Your task to perform on an android device: set the timer Image 0: 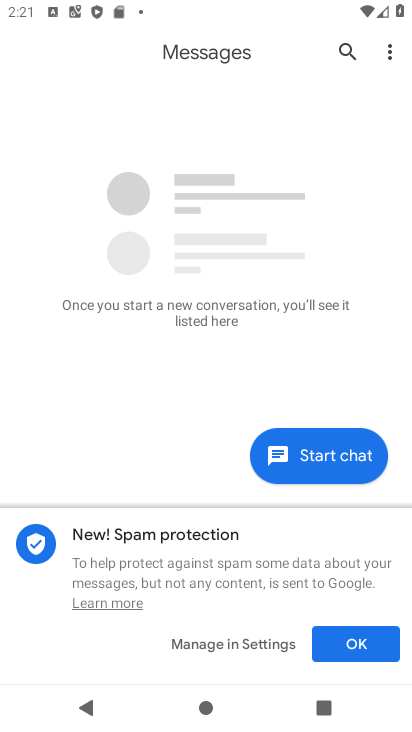
Step 0: press home button
Your task to perform on an android device: set the timer Image 1: 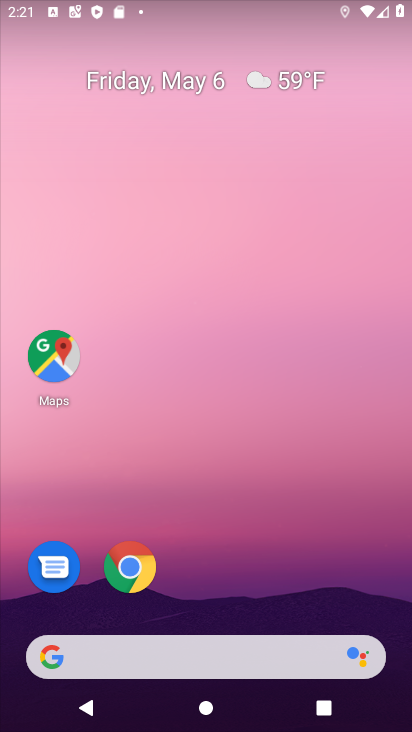
Step 1: drag from (389, 611) to (306, 10)
Your task to perform on an android device: set the timer Image 2: 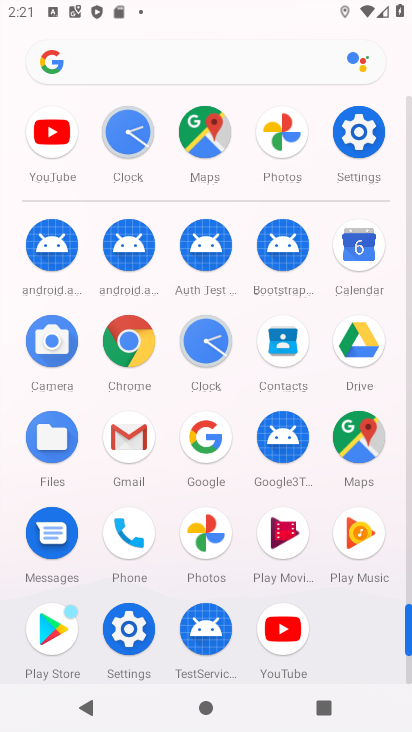
Step 2: click (206, 338)
Your task to perform on an android device: set the timer Image 3: 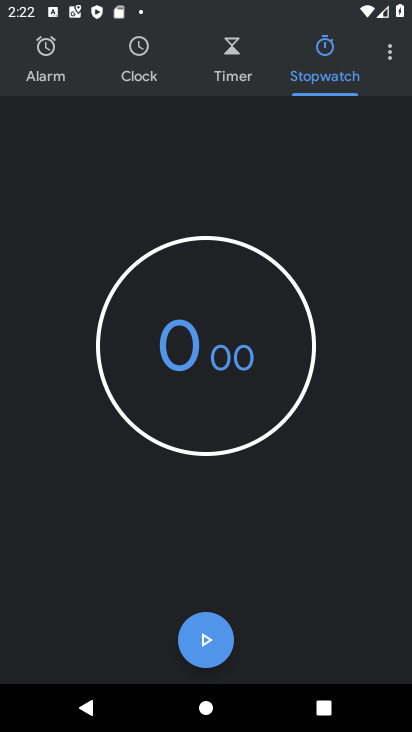
Step 3: click (229, 53)
Your task to perform on an android device: set the timer Image 4: 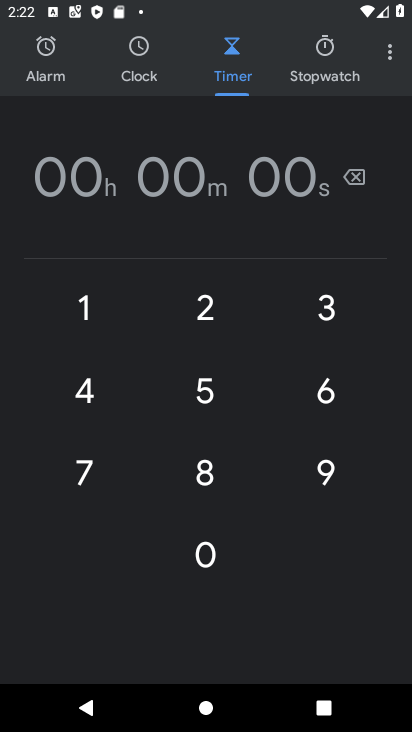
Step 4: click (76, 294)
Your task to perform on an android device: set the timer Image 5: 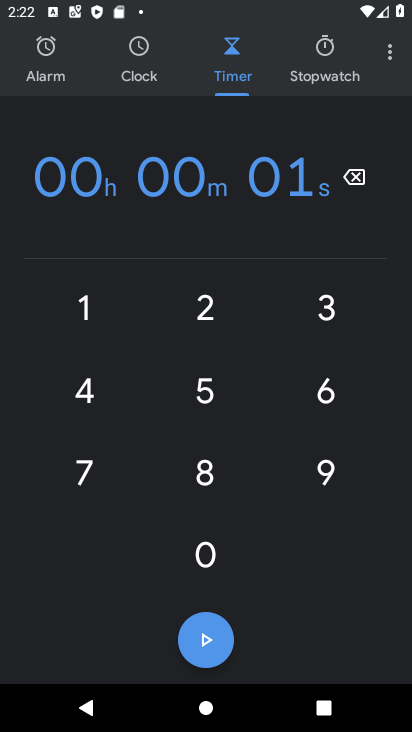
Step 5: click (327, 311)
Your task to perform on an android device: set the timer Image 6: 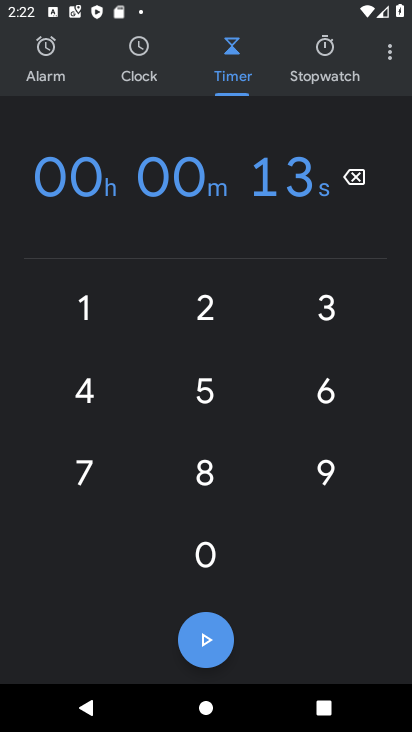
Step 6: click (193, 557)
Your task to perform on an android device: set the timer Image 7: 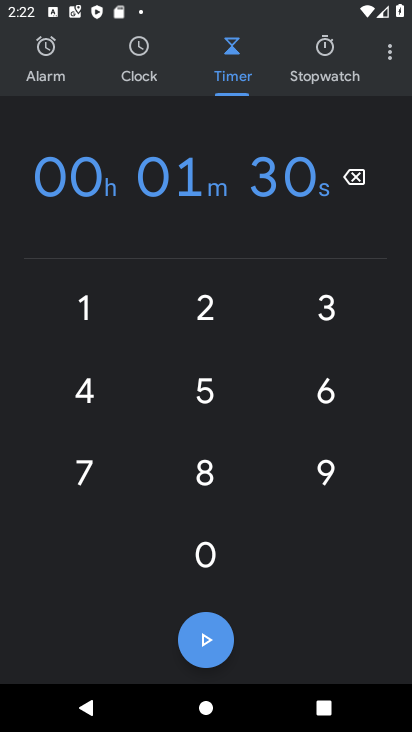
Step 7: click (193, 557)
Your task to perform on an android device: set the timer Image 8: 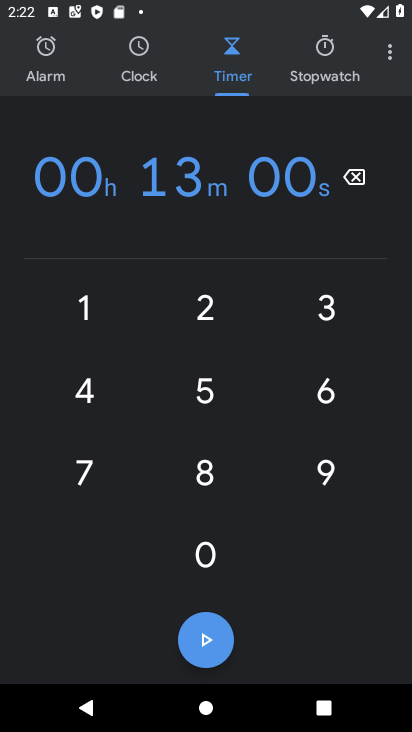
Step 8: click (193, 557)
Your task to perform on an android device: set the timer Image 9: 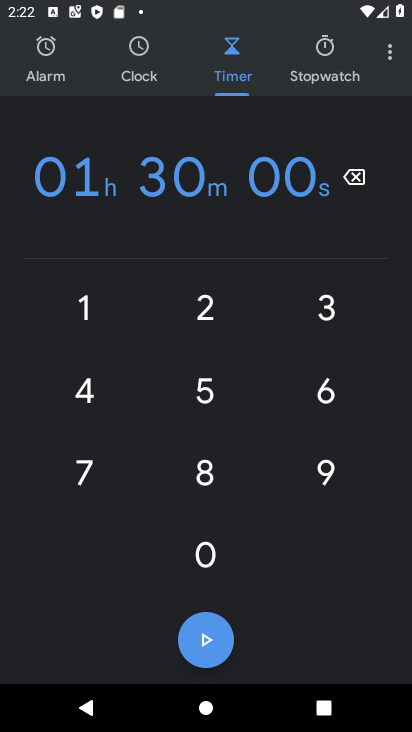
Step 9: task complete